Your task to perform on an android device: Do I have any events tomorrow? Image 0: 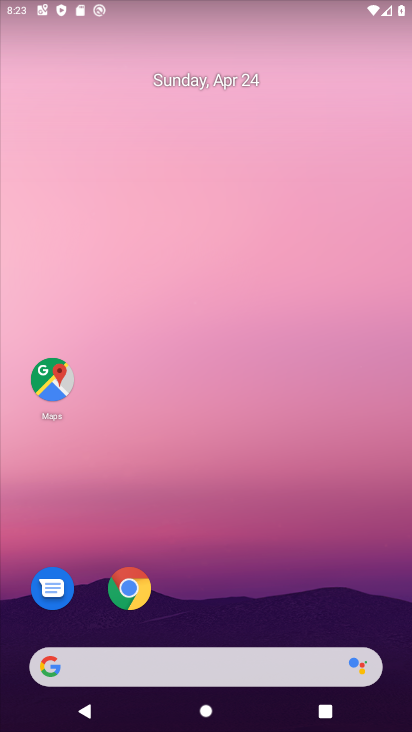
Step 0: drag from (233, 557) to (217, 53)
Your task to perform on an android device: Do I have any events tomorrow? Image 1: 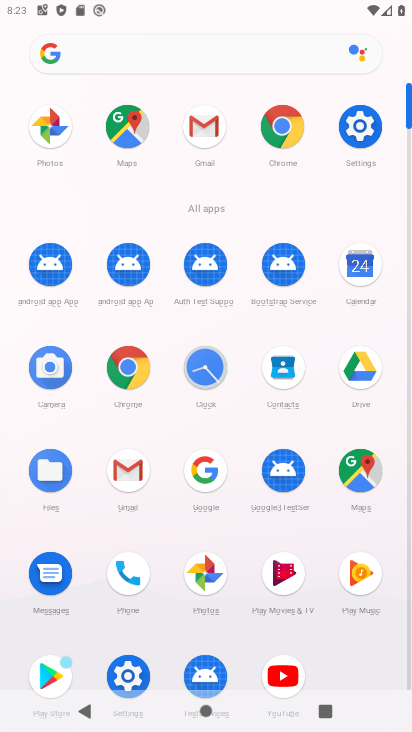
Step 1: click (361, 268)
Your task to perform on an android device: Do I have any events tomorrow? Image 2: 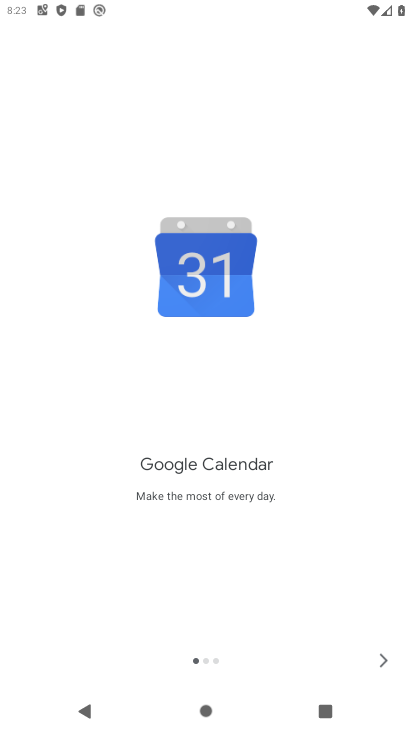
Step 2: click (385, 656)
Your task to perform on an android device: Do I have any events tomorrow? Image 3: 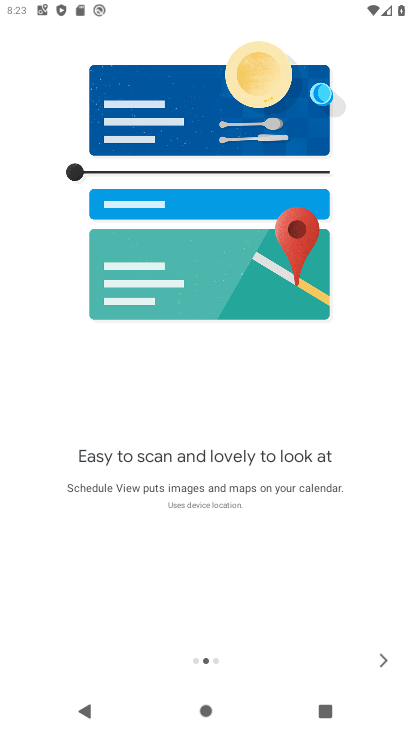
Step 3: click (387, 659)
Your task to perform on an android device: Do I have any events tomorrow? Image 4: 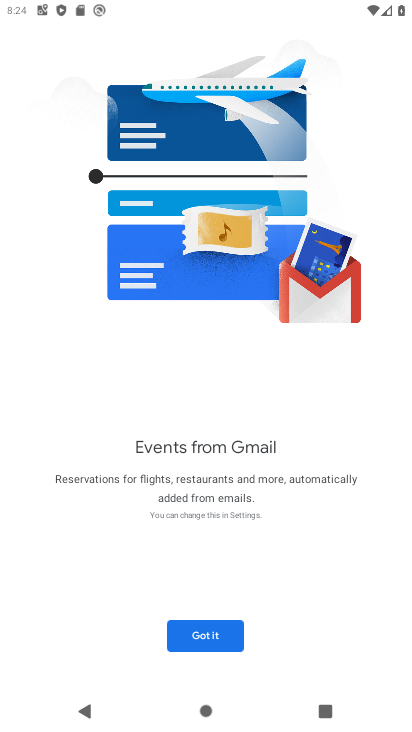
Step 4: click (218, 644)
Your task to perform on an android device: Do I have any events tomorrow? Image 5: 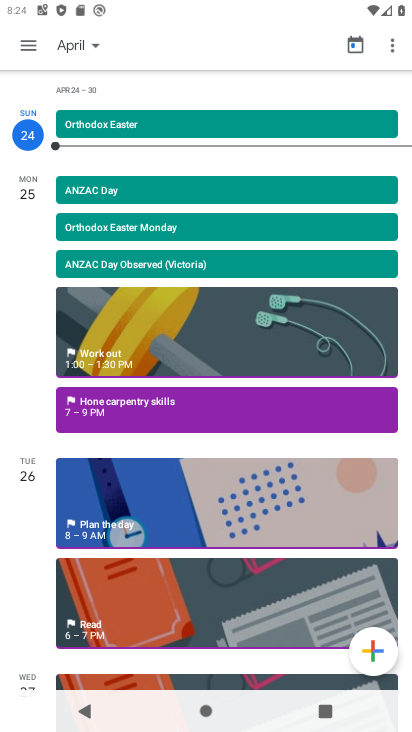
Step 5: click (95, 47)
Your task to perform on an android device: Do I have any events tomorrow? Image 6: 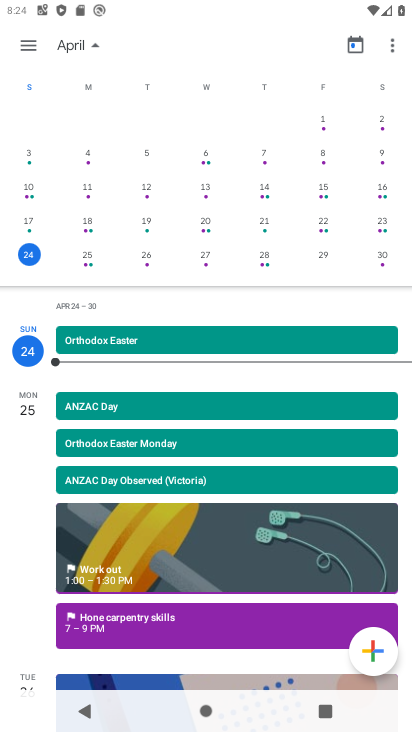
Step 6: click (90, 256)
Your task to perform on an android device: Do I have any events tomorrow? Image 7: 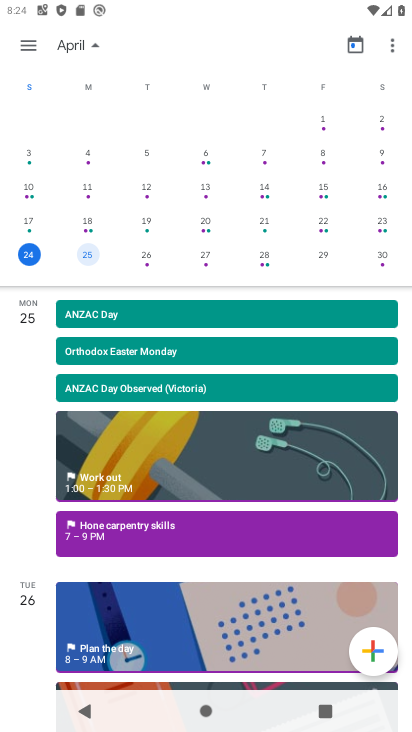
Step 7: task complete